Your task to perform on an android device: Show me the alarms in the clock app Image 0: 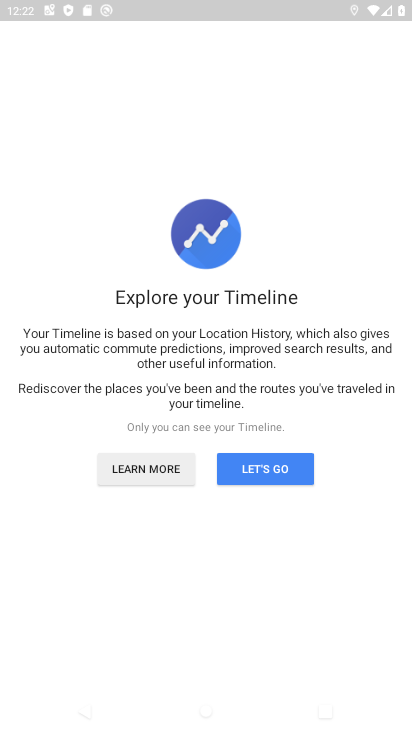
Step 0: press home button
Your task to perform on an android device: Show me the alarms in the clock app Image 1: 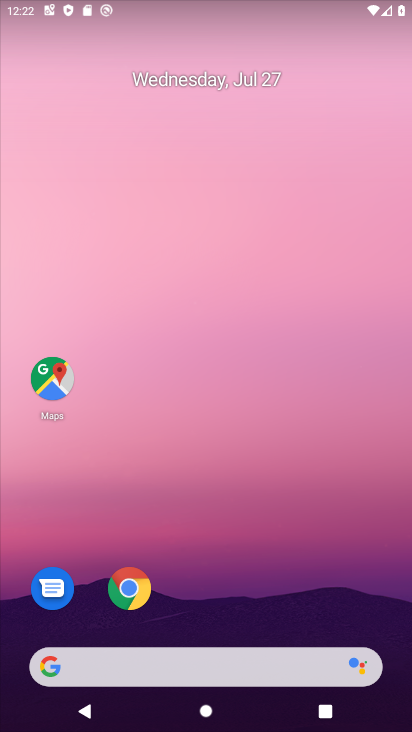
Step 1: drag from (26, 712) to (191, 155)
Your task to perform on an android device: Show me the alarms in the clock app Image 2: 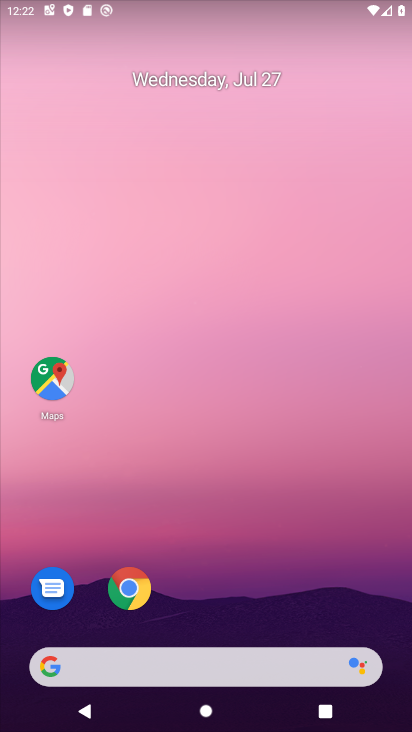
Step 2: drag from (23, 673) to (230, 678)
Your task to perform on an android device: Show me the alarms in the clock app Image 3: 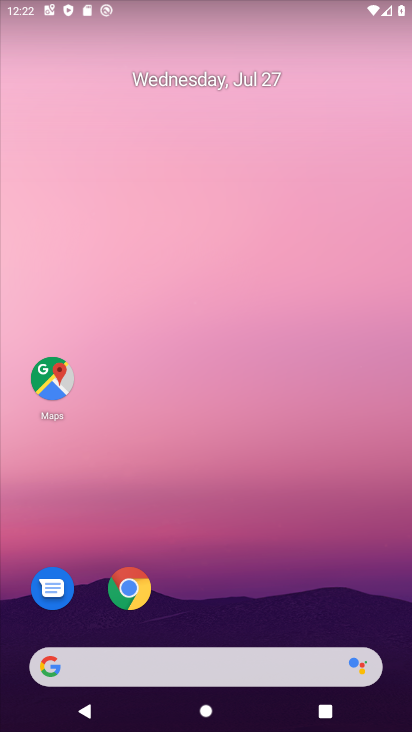
Step 3: drag from (207, 365) to (319, 30)
Your task to perform on an android device: Show me the alarms in the clock app Image 4: 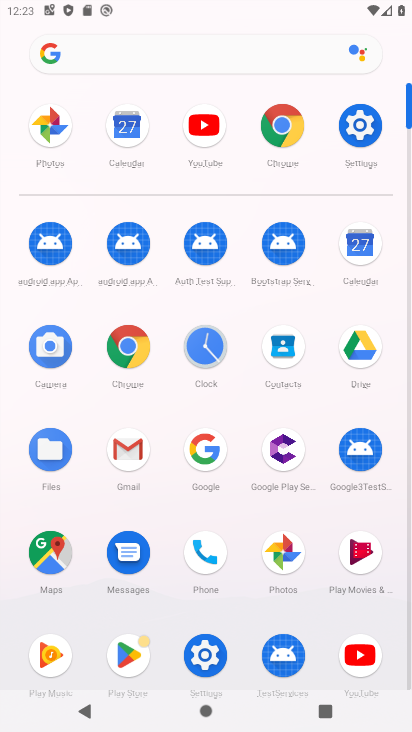
Step 4: click (193, 362)
Your task to perform on an android device: Show me the alarms in the clock app Image 5: 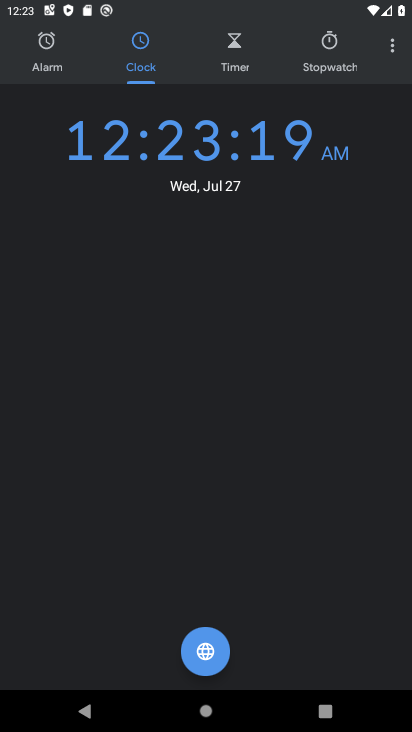
Step 5: click (43, 49)
Your task to perform on an android device: Show me the alarms in the clock app Image 6: 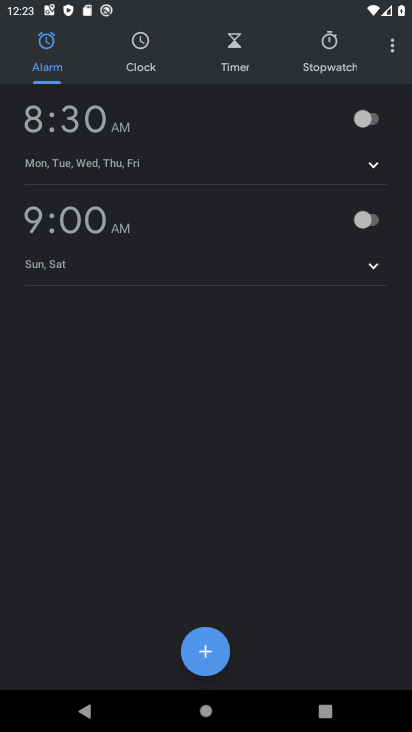
Step 6: task complete